Your task to perform on an android device: allow notifications from all sites in the chrome app Image 0: 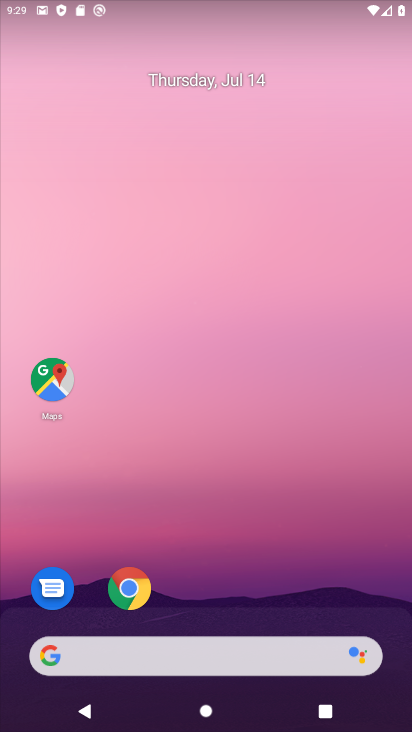
Step 0: drag from (202, 597) to (227, 12)
Your task to perform on an android device: allow notifications from all sites in the chrome app Image 1: 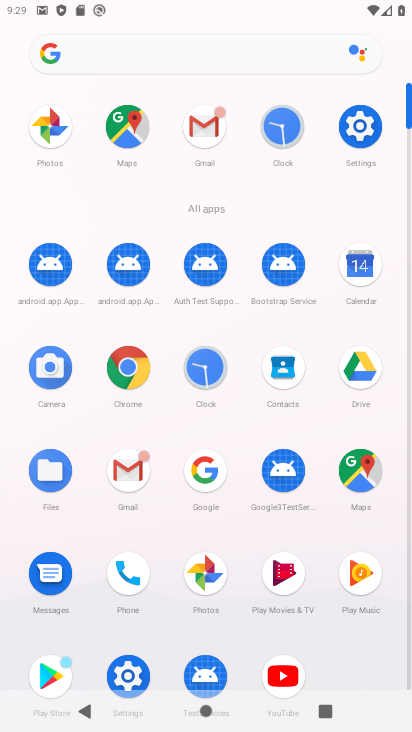
Step 1: click (125, 385)
Your task to perform on an android device: allow notifications from all sites in the chrome app Image 2: 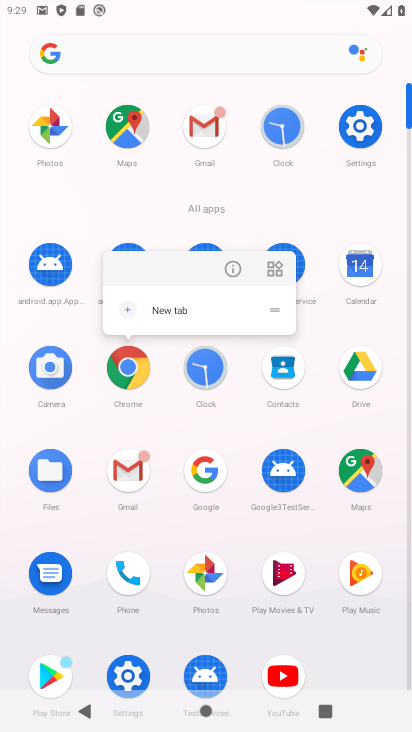
Step 2: click (124, 374)
Your task to perform on an android device: allow notifications from all sites in the chrome app Image 3: 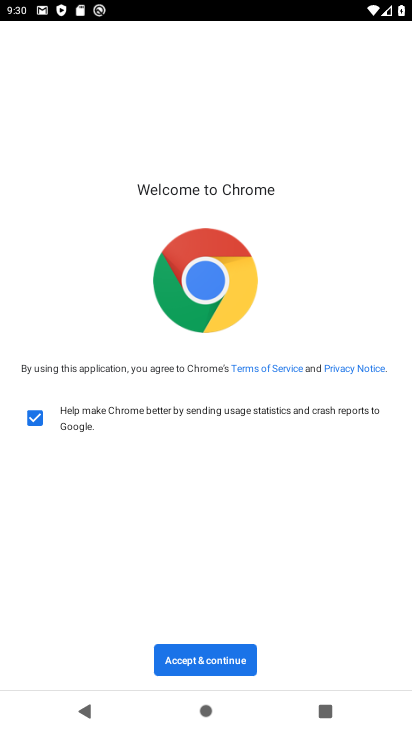
Step 3: click (228, 663)
Your task to perform on an android device: allow notifications from all sites in the chrome app Image 4: 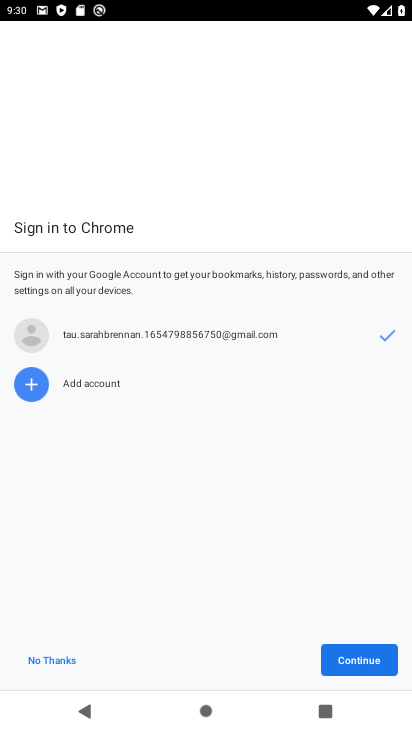
Step 4: click (363, 664)
Your task to perform on an android device: allow notifications from all sites in the chrome app Image 5: 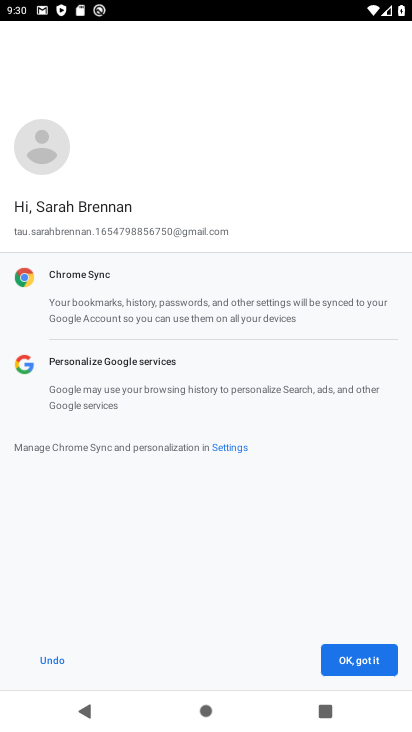
Step 5: click (363, 663)
Your task to perform on an android device: allow notifications from all sites in the chrome app Image 6: 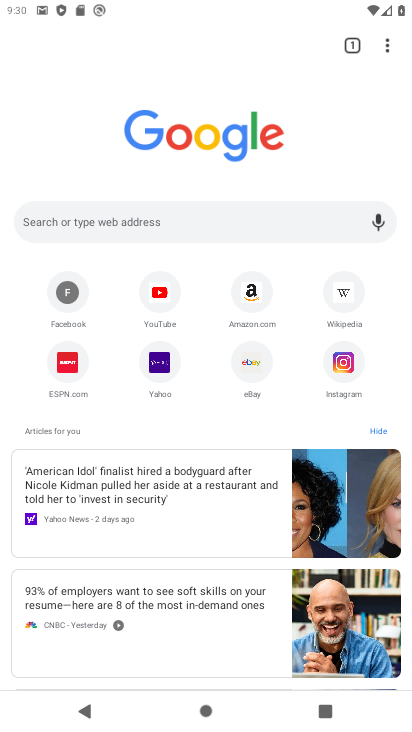
Step 6: click (387, 35)
Your task to perform on an android device: allow notifications from all sites in the chrome app Image 7: 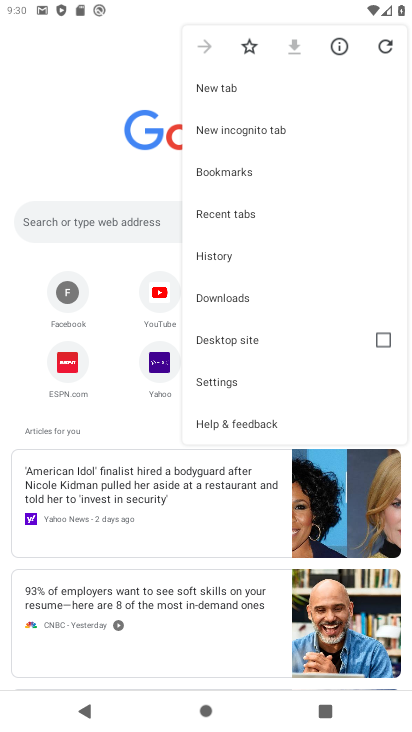
Step 7: click (227, 385)
Your task to perform on an android device: allow notifications from all sites in the chrome app Image 8: 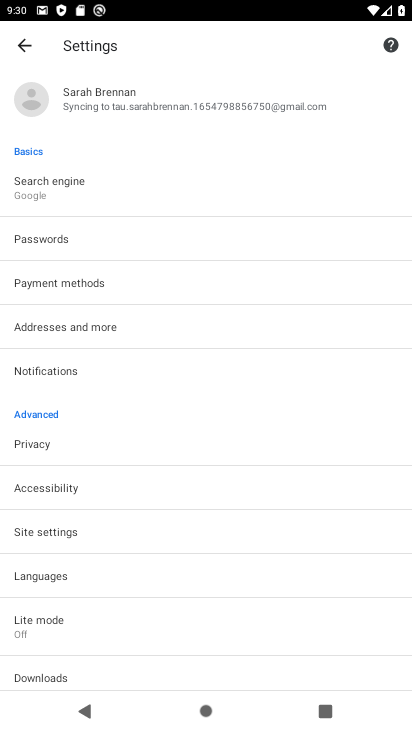
Step 8: click (72, 376)
Your task to perform on an android device: allow notifications from all sites in the chrome app Image 9: 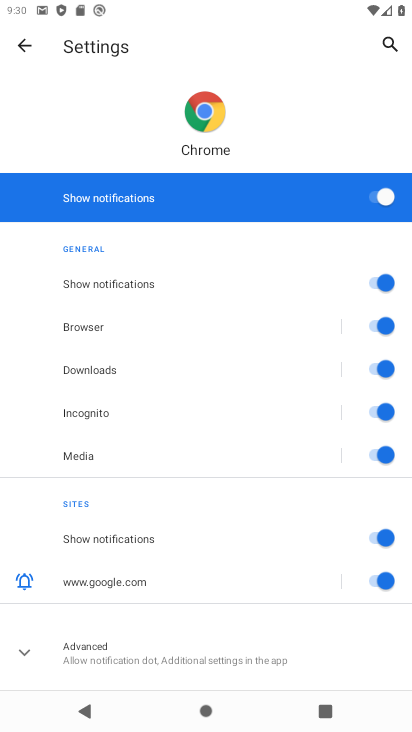
Step 9: task complete